Your task to perform on an android device: find photos in the google photos app Image 0: 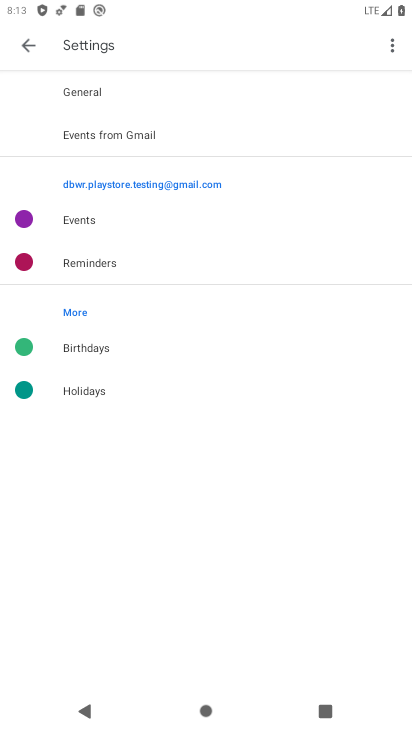
Step 0: press home button
Your task to perform on an android device: find photos in the google photos app Image 1: 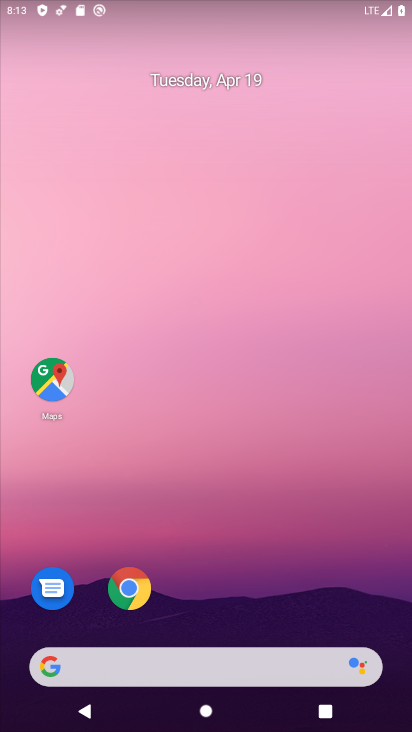
Step 1: drag from (207, 620) to (240, 48)
Your task to perform on an android device: find photos in the google photos app Image 2: 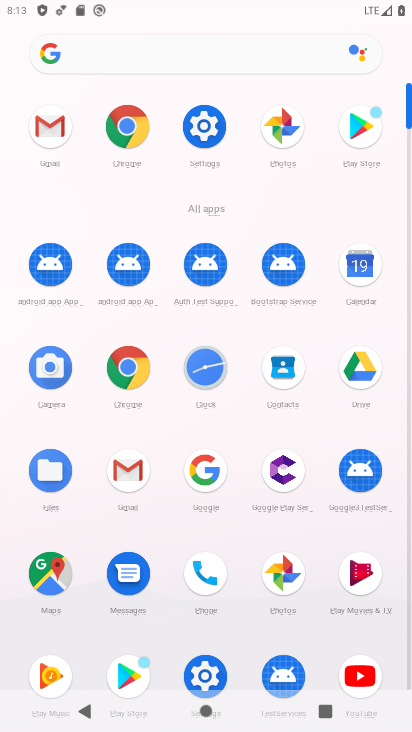
Step 2: click (279, 563)
Your task to perform on an android device: find photos in the google photos app Image 3: 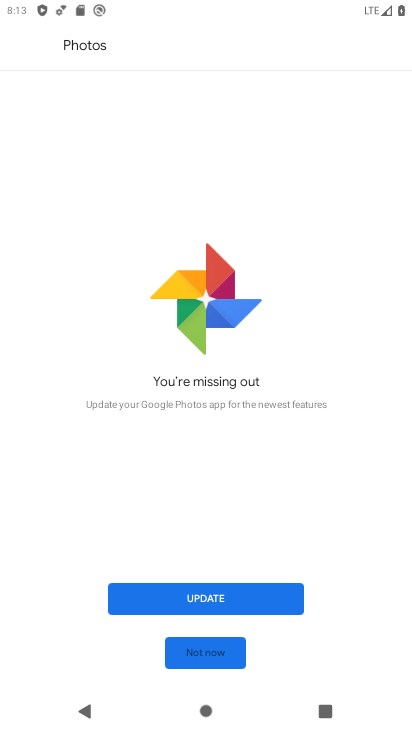
Step 3: click (200, 600)
Your task to perform on an android device: find photos in the google photos app Image 4: 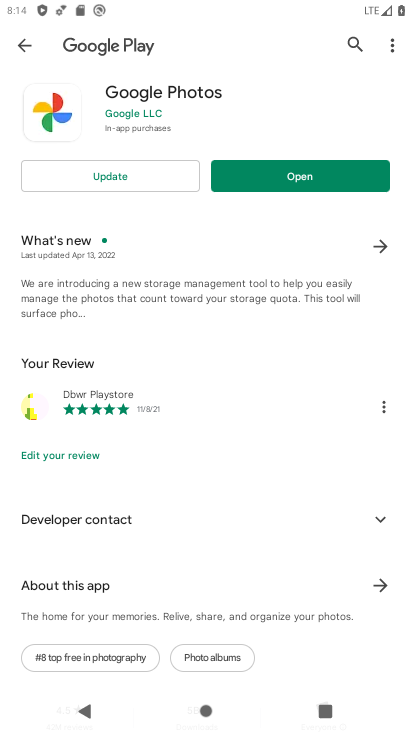
Step 4: click (108, 173)
Your task to perform on an android device: find photos in the google photos app Image 5: 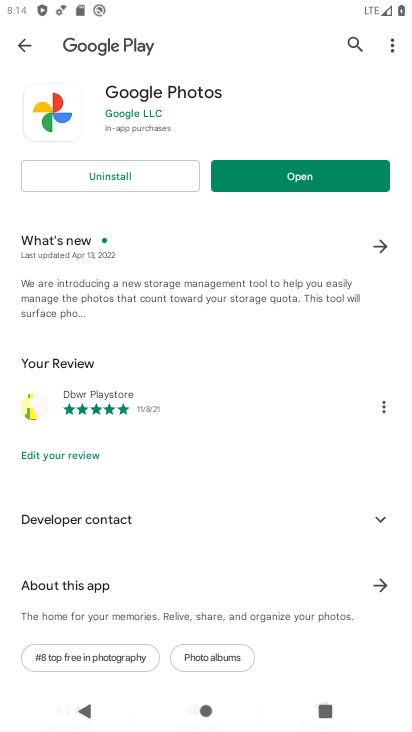
Step 5: click (288, 180)
Your task to perform on an android device: find photos in the google photos app Image 6: 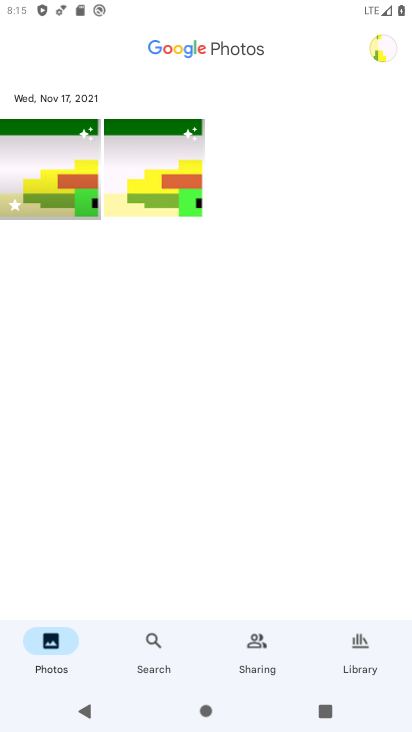
Step 6: click (65, 166)
Your task to perform on an android device: find photos in the google photos app Image 7: 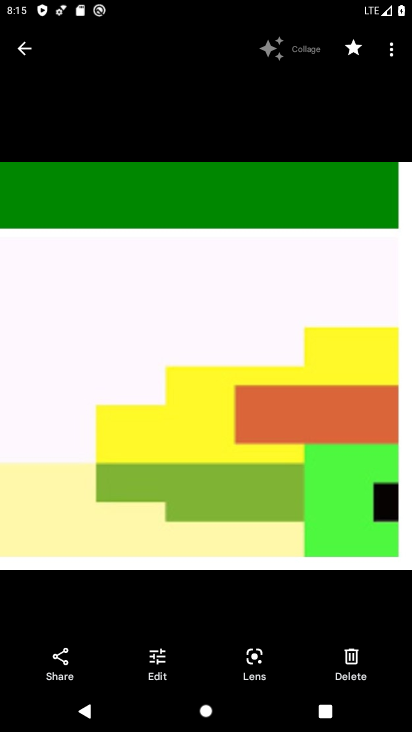
Step 7: task complete